Your task to perform on an android device: What's on my calendar today? Image 0: 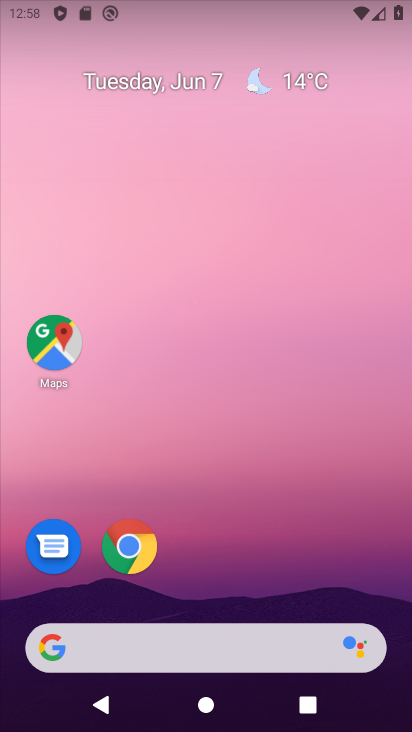
Step 0: drag from (215, 619) to (157, 16)
Your task to perform on an android device: What's on my calendar today? Image 1: 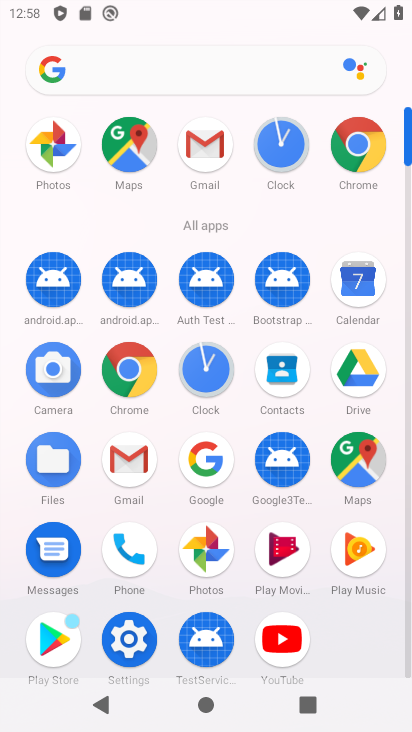
Step 1: click (351, 287)
Your task to perform on an android device: What's on my calendar today? Image 2: 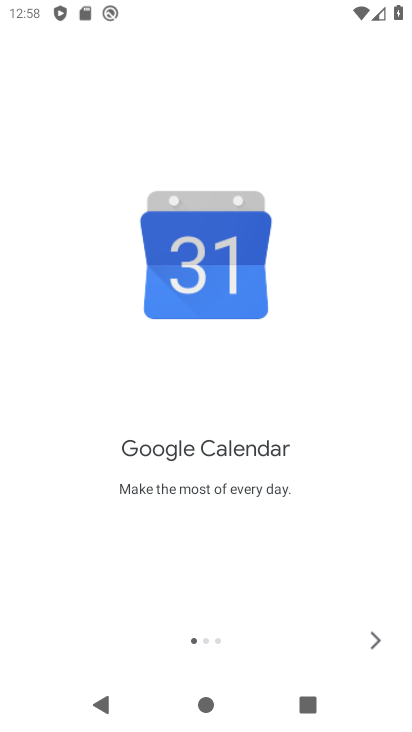
Step 2: click (375, 638)
Your task to perform on an android device: What's on my calendar today? Image 3: 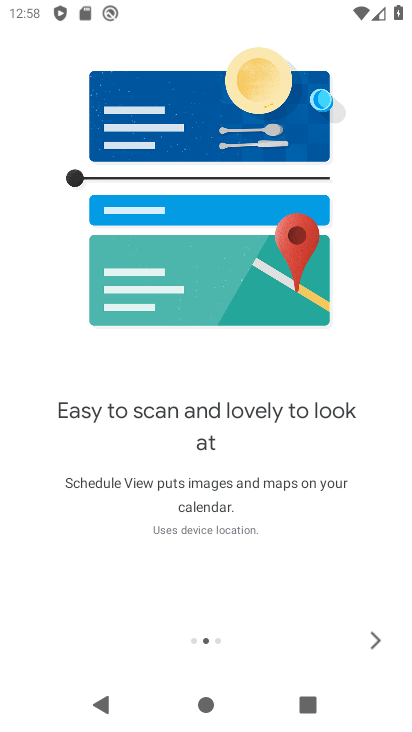
Step 3: click (375, 638)
Your task to perform on an android device: What's on my calendar today? Image 4: 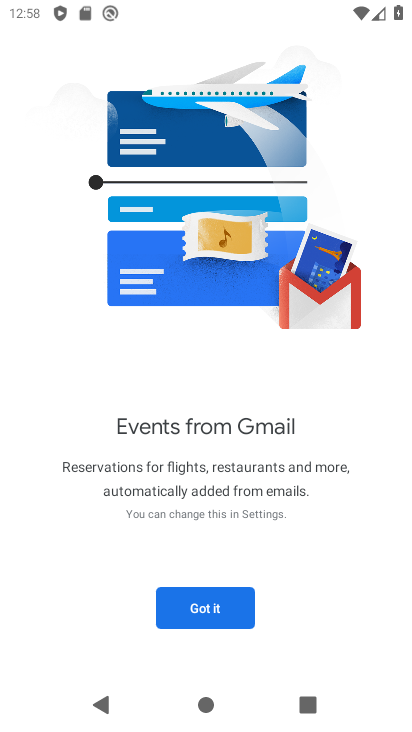
Step 4: click (220, 619)
Your task to perform on an android device: What's on my calendar today? Image 5: 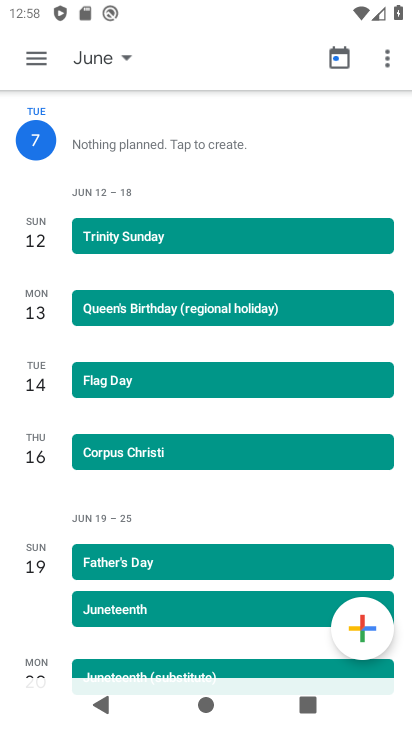
Step 5: click (34, 63)
Your task to perform on an android device: What's on my calendar today? Image 6: 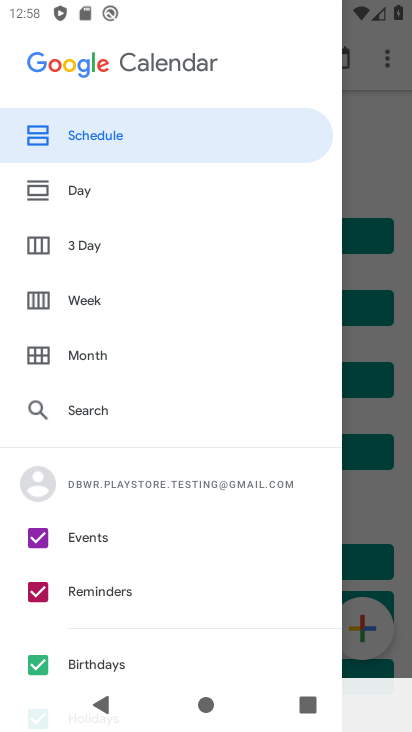
Step 6: click (106, 298)
Your task to perform on an android device: What's on my calendar today? Image 7: 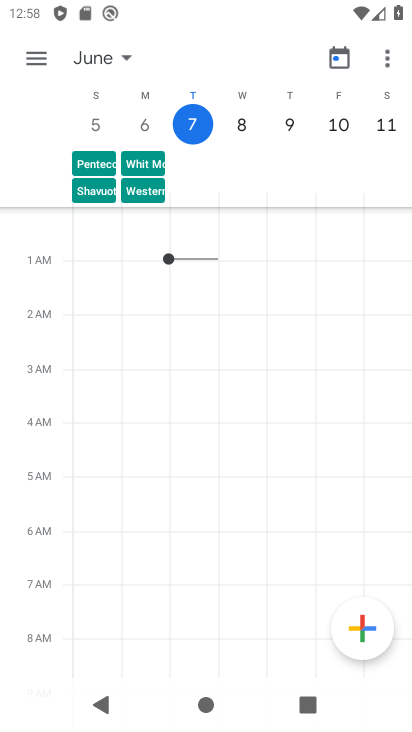
Step 7: click (200, 132)
Your task to perform on an android device: What's on my calendar today? Image 8: 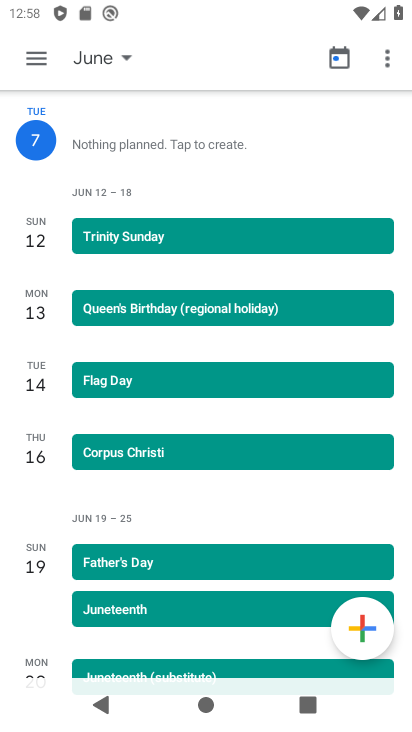
Step 8: task complete